Your task to perform on an android device: Toggle the flashlight Image 0: 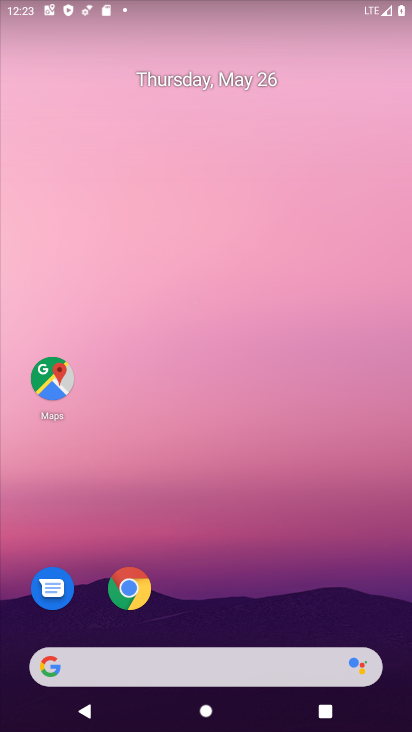
Step 0: drag from (194, 487) to (143, 67)
Your task to perform on an android device: Toggle the flashlight Image 1: 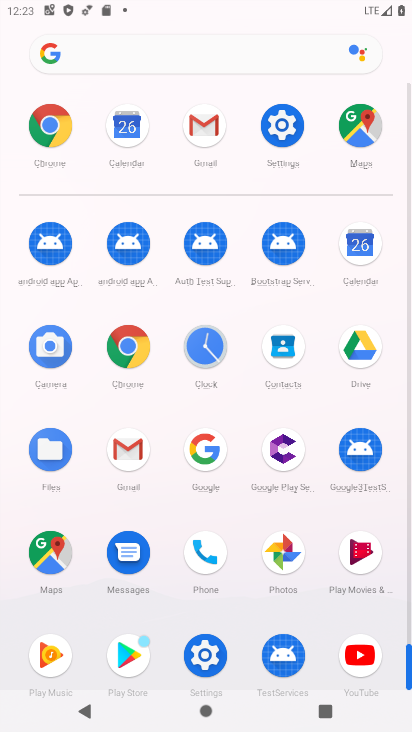
Step 1: drag from (9, 585) to (13, 231)
Your task to perform on an android device: Toggle the flashlight Image 2: 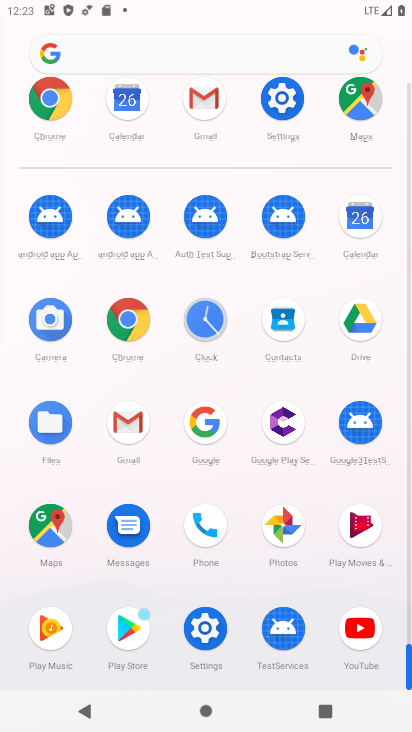
Step 2: click (203, 627)
Your task to perform on an android device: Toggle the flashlight Image 3: 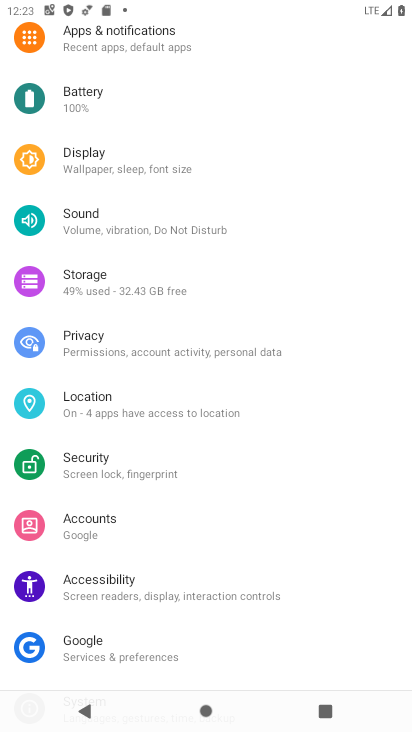
Step 3: drag from (227, 110) to (268, 585)
Your task to perform on an android device: Toggle the flashlight Image 4: 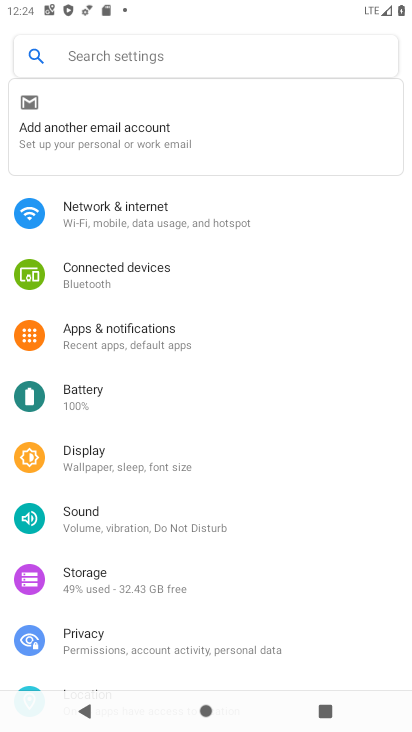
Step 4: click (162, 191)
Your task to perform on an android device: Toggle the flashlight Image 5: 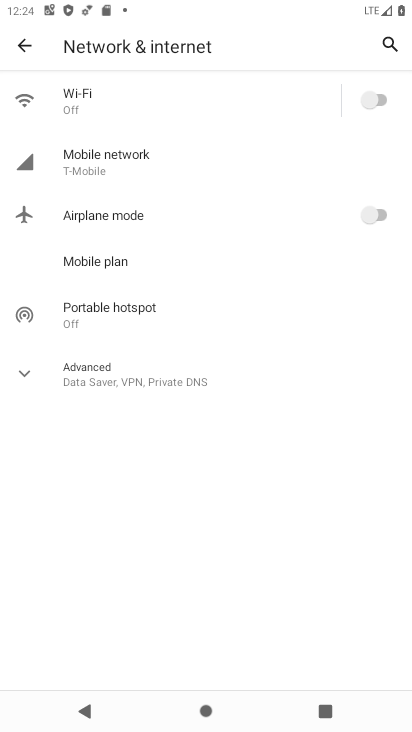
Step 5: click (30, 362)
Your task to perform on an android device: Toggle the flashlight Image 6: 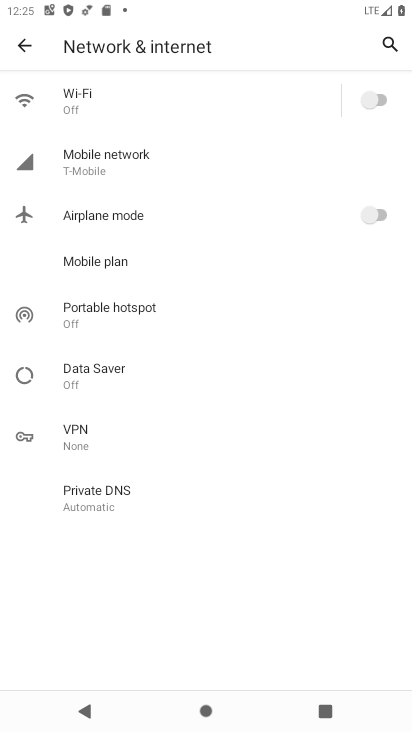
Step 6: task complete